Your task to perform on an android device: check the backup settings in the google photos Image 0: 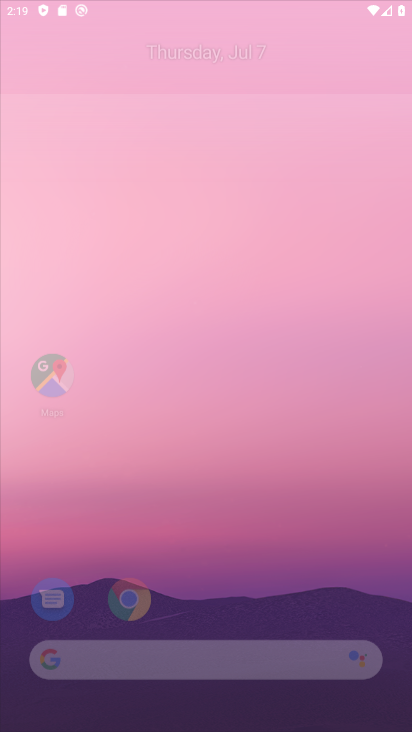
Step 0: click (215, 293)
Your task to perform on an android device: check the backup settings in the google photos Image 1: 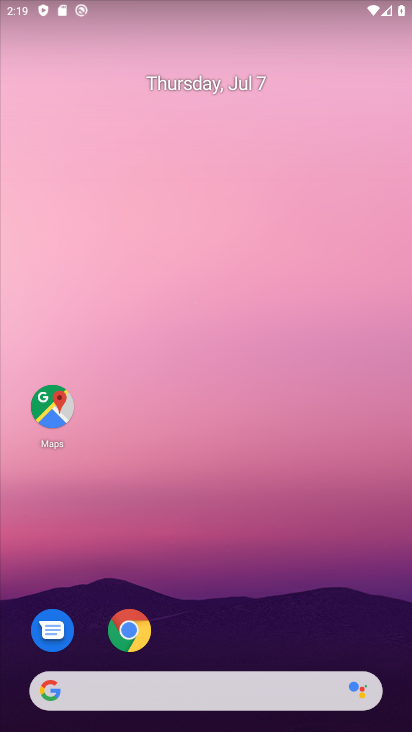
Step 1: press home button
Your task to perform on an android device: check the backup settings in the google photos Image 2: 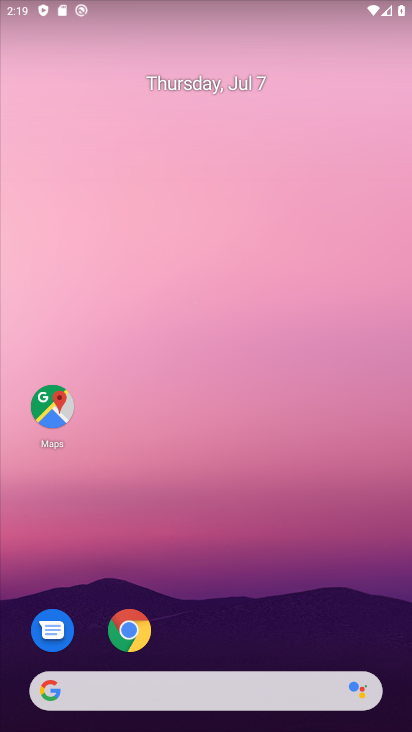
Step 2: drag from (235, 660) to (226, 489)
Your task to perform on an android device: check the backup settings in the google photos Image 3: 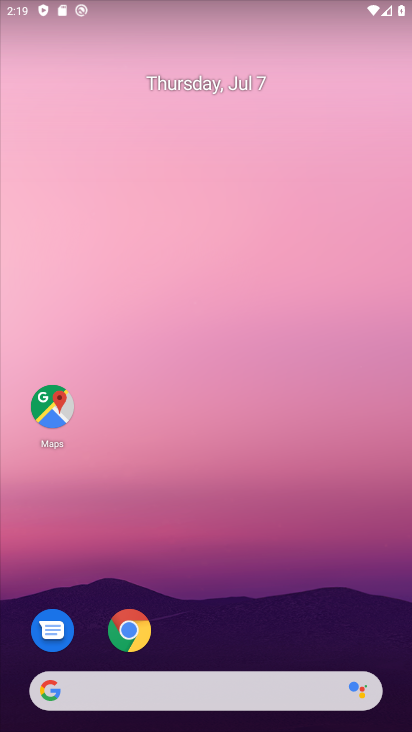
Step 3: drag from (230, 647) to (225, 309)
Your task to perform on an android device: check the backup settings in the google photos Image 4: 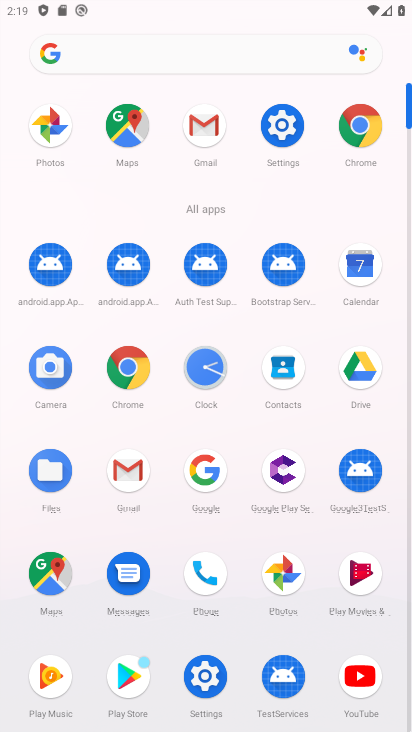
Step 4: click (276, 560)
Your task to perform on an android device: check the backup settings in the google photos Image 5: 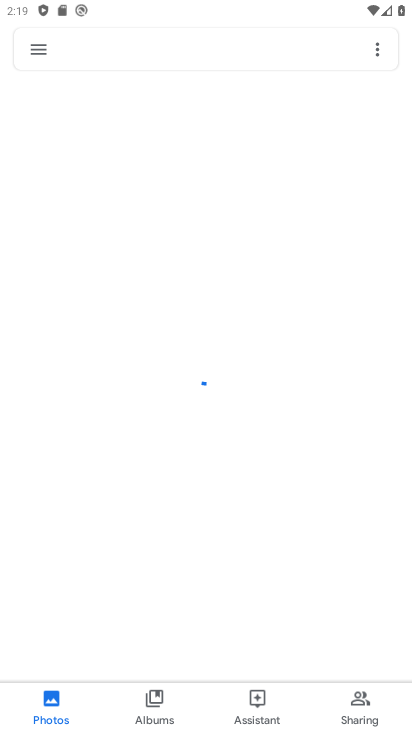
Step 5: click (43, 43)
Your task to perform on an android device: check the backup settings in the google photos Image 6: 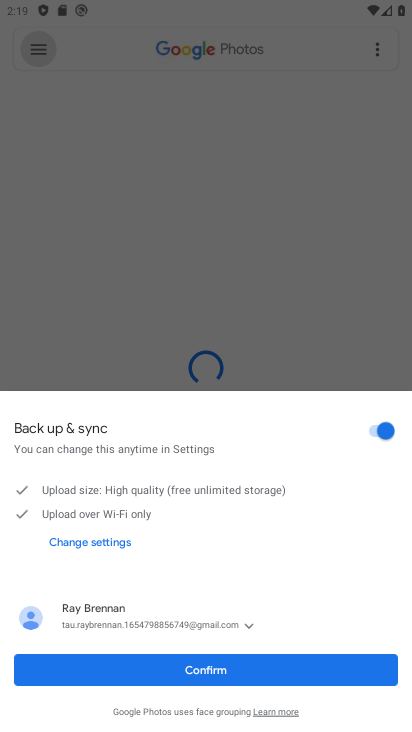
Step 6: click (40, 46)
Your task to perform on an android device: check the backup settings in the google photos Image 7: 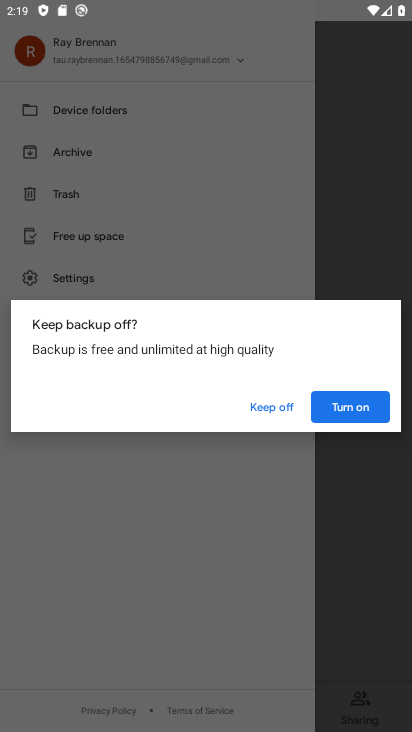
Step 7: click (253, 409)
Your task to perform on an android device: check the backup settings in the google photos Image 8: 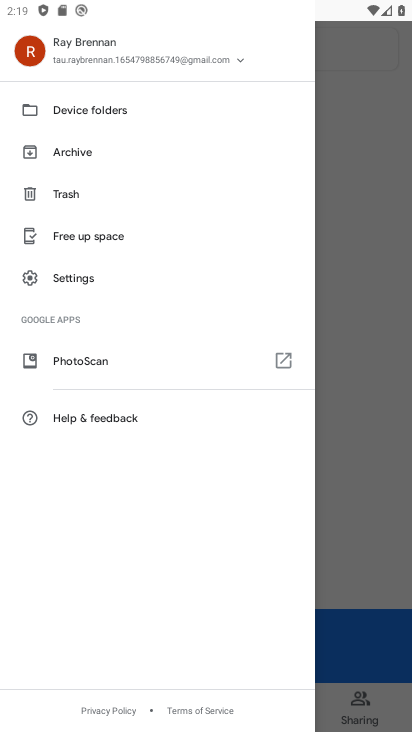
Step 8: click (62, 272)
Your task to perform on an android device: check the backup settings in the google photos Image 9: 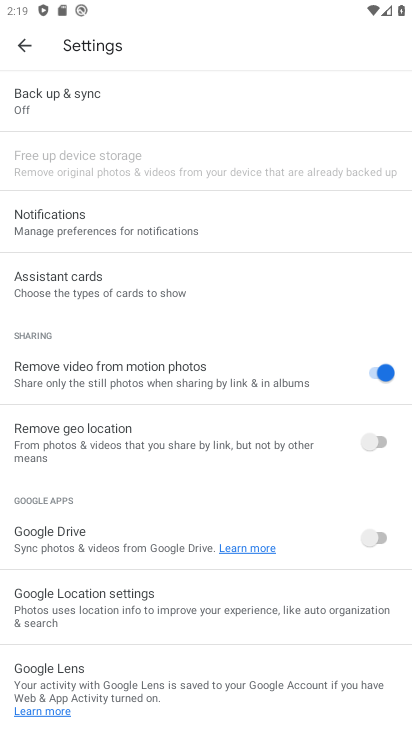
Step 9: click (192, 95)
Your task to perform on an android device: check the backup settings in the google photos Image 10: 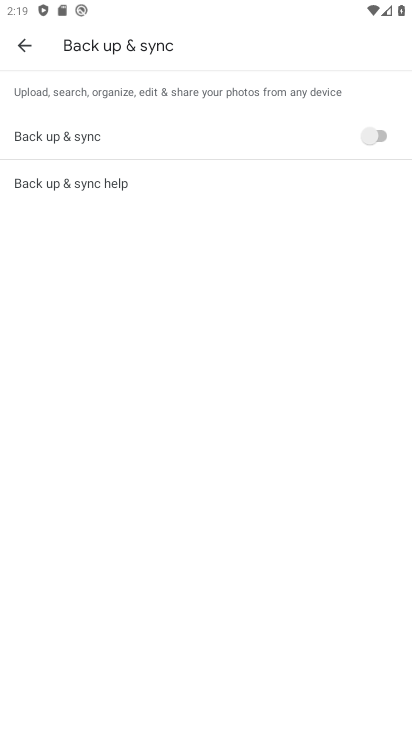
Step 10: task complete